Your task to perform on an android device: What's the weather today? Image 0: 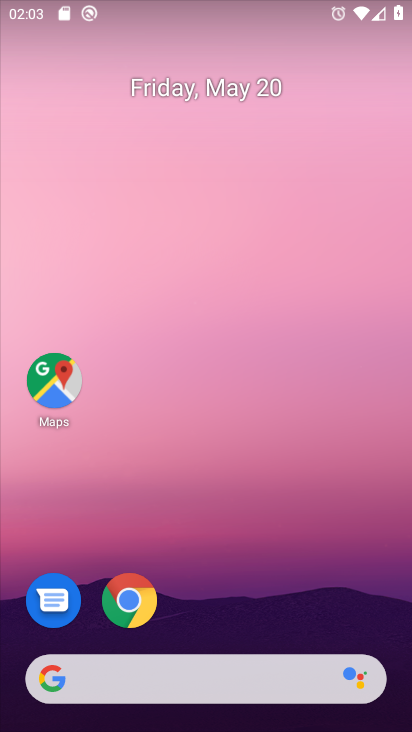
Step 0: click (188, 683)
Your task to perform on an android device: What's the weather today? Image 1: 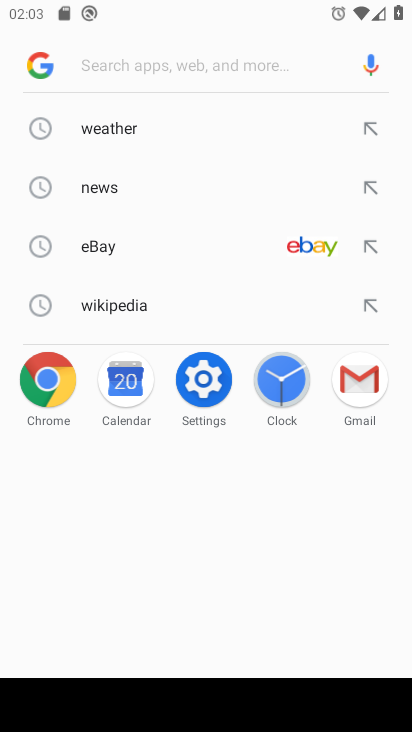
Step 1: click (138, 134)
Your task to perform on an android device: What's the weather today? Image 2: 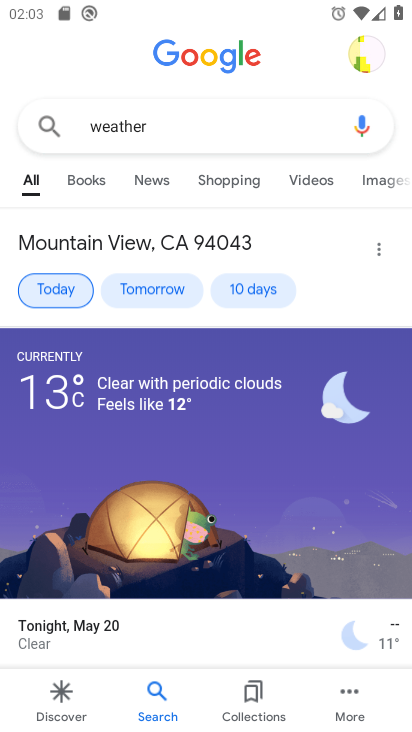
Step 2: task complete